Your task to perform on an android device: Open accessibility settings Image 0: 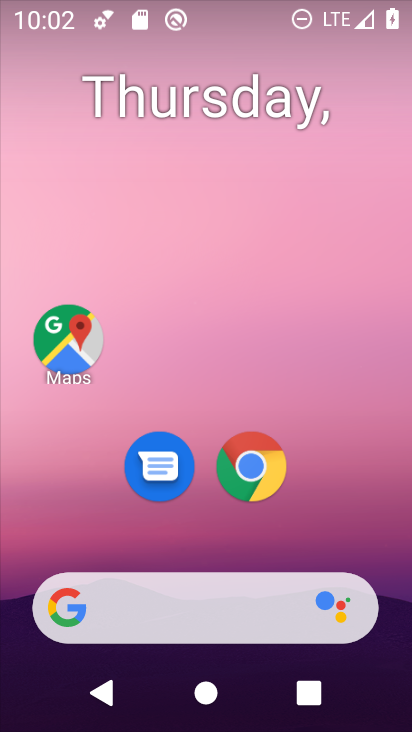
Step 0: drag from (265, 567) to (200, 57)
Your task to perform on an android device: Open accessibility settings Image 1: 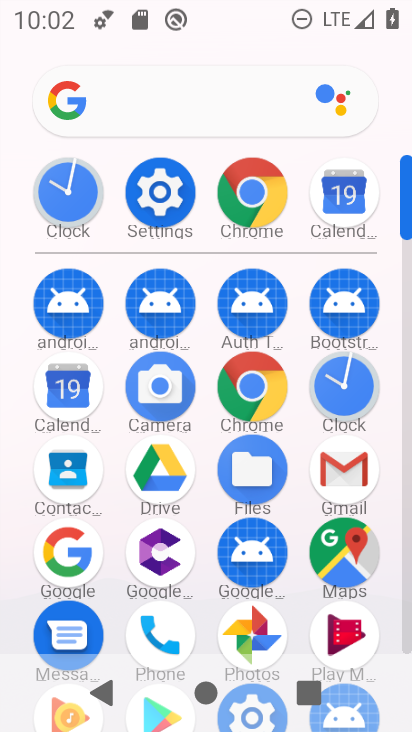
Step 1: click (161, 190)
Your task to perform on an android device: Open accessibility settings Image 2: 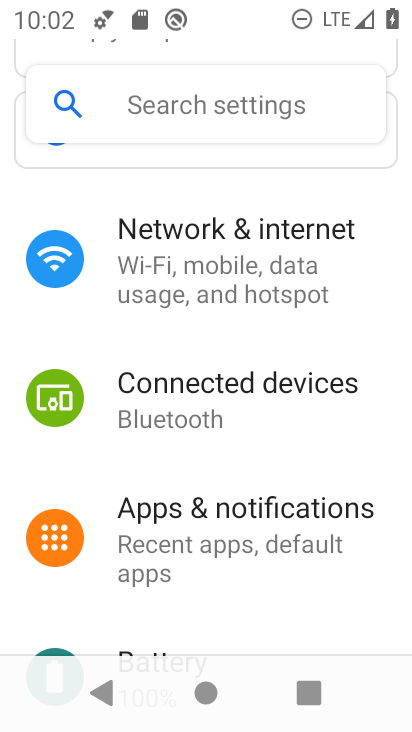
Step 2: drag from (243, 623) to (274, 267)
Your task to perform on an android device: Open accessibility settings Image 3: 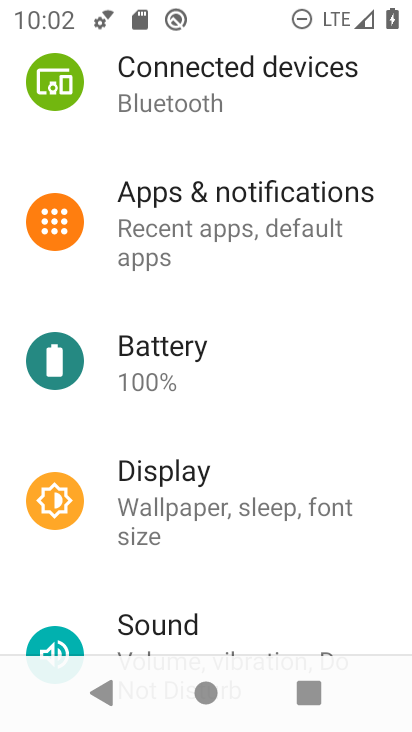
Step 3: drag from (232, 571) to (257, 149)
Your task to perform on an android device: Open accessibility settings Image 4: 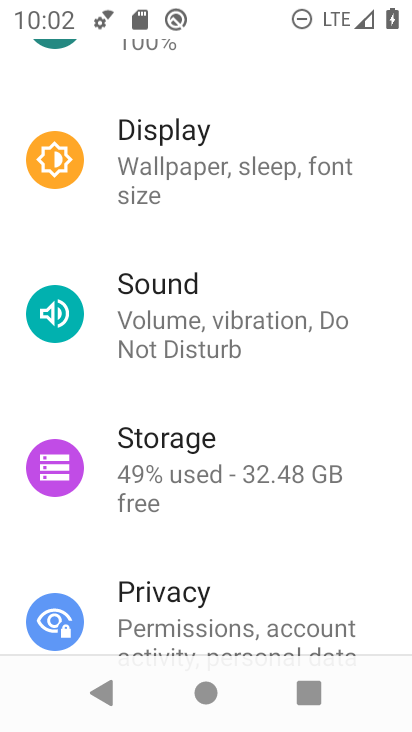
Step 4: drag from (240, 551) to (258, 146)
Your task to perform on an android device: Open accessibility settings Image 5: 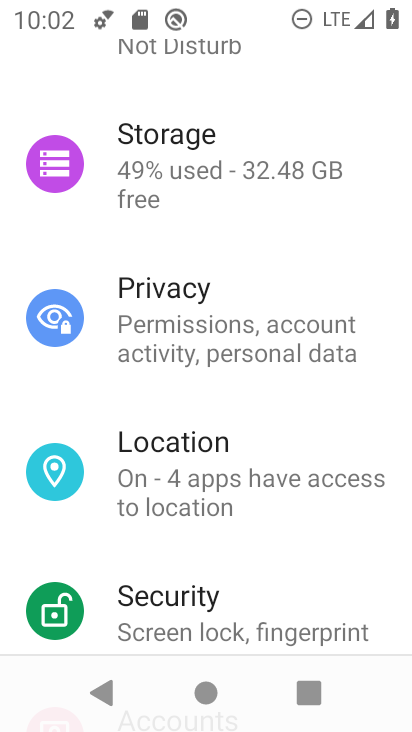
Step 5: drag from (209, 589) to (222, 100)
Your task to perform on an android device: Open accessibility settings Image 6: 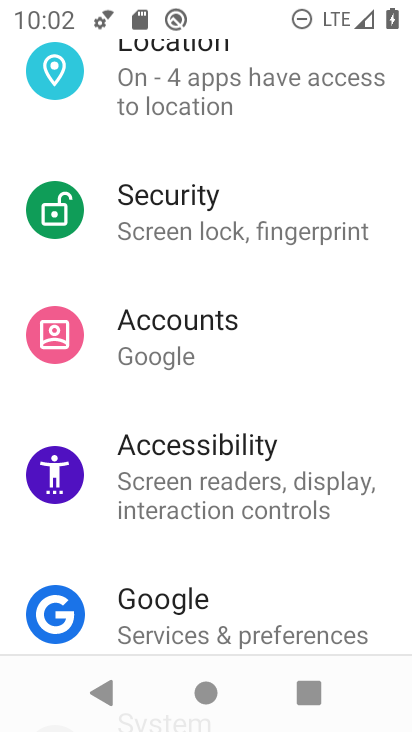
Step 6: click (252, 456)
Your task to perform on an android device: Open accessibility settings Image 7: 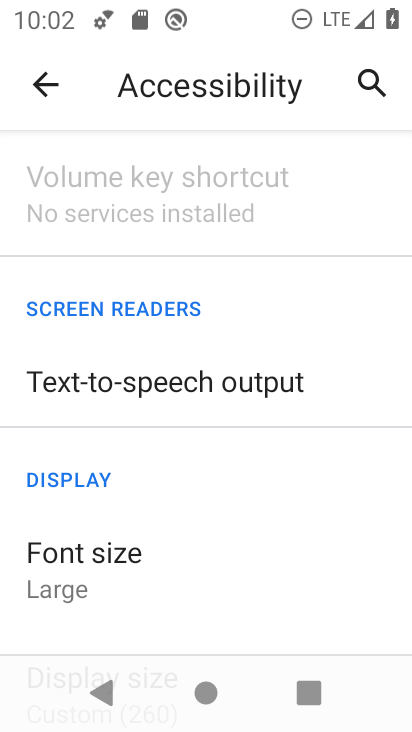
Step 7: task complete